Your task to perform on an android device: install app "Spotify" Image 0: 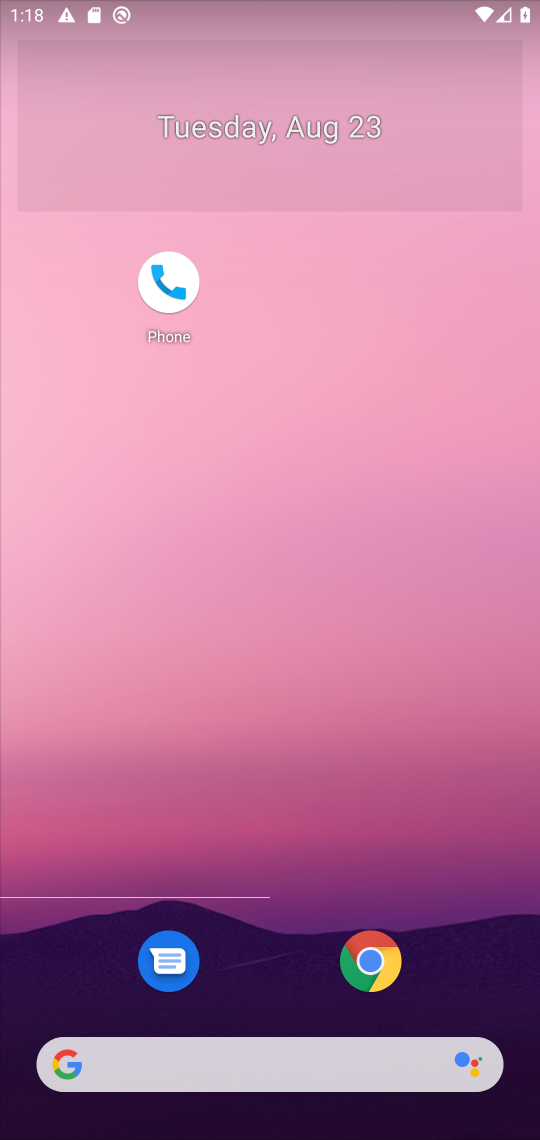
Step 0: task complete